Your task to perform on an android device: Open privacy settings Image 0: 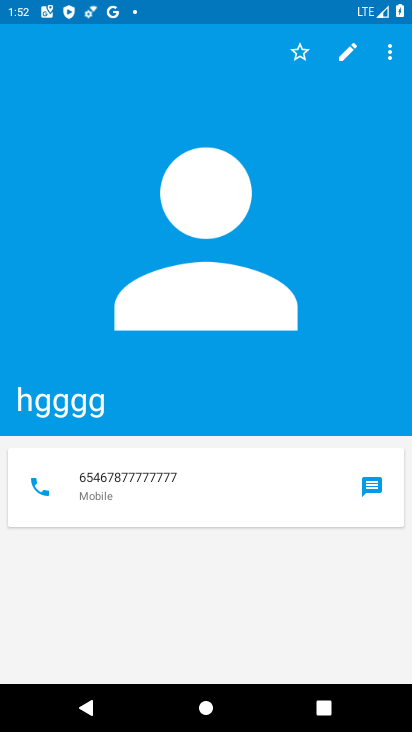
Step 0: press home button
Your task to perform on an android device: Open privacy settings Image 1: 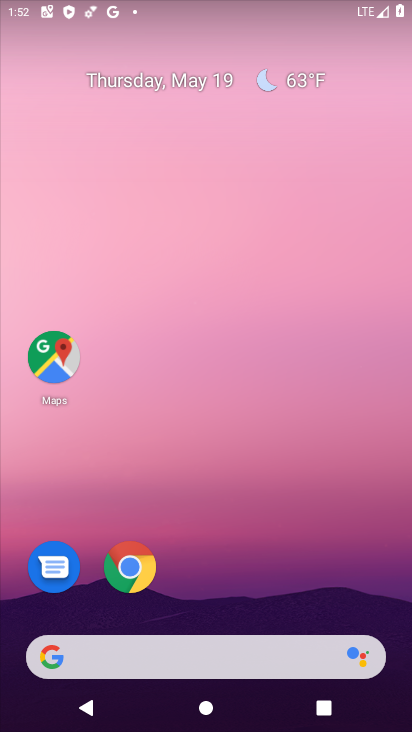
Step 1: drag from (315, 532) to (238, 7)
Your task to perform on an android device: Open privacy settings Image 2: 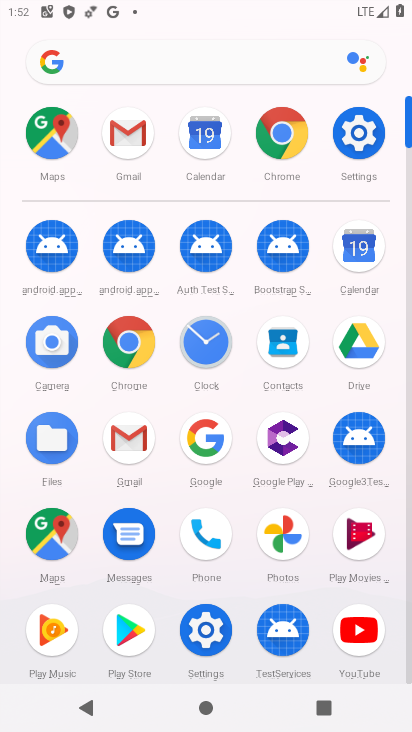
Step 2: click (351, 133)
Your task to perform on an android device: Open privacy settings Image 3: 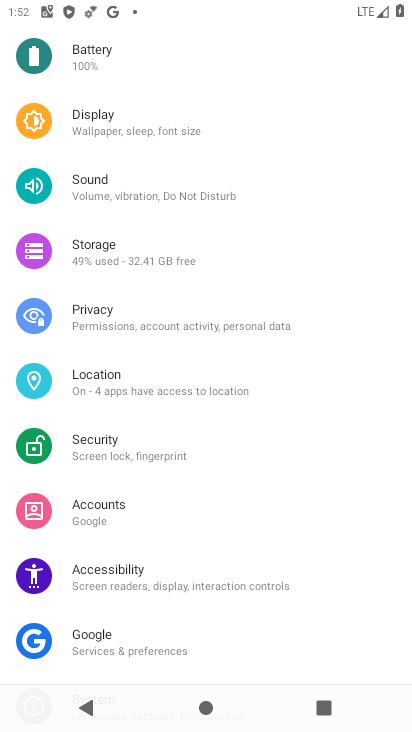
Step 3: click (104, 314)
Your task to perform on an android device: Open privacy settings Image 4: 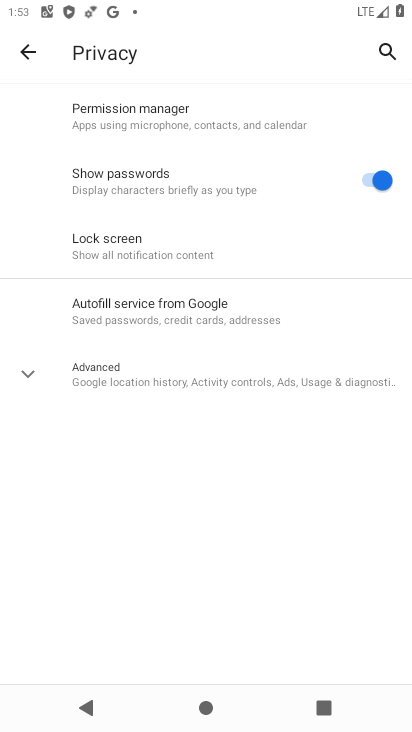
Step 4: task complete